Your task to perform on an android device: Open my contact list Image 0: 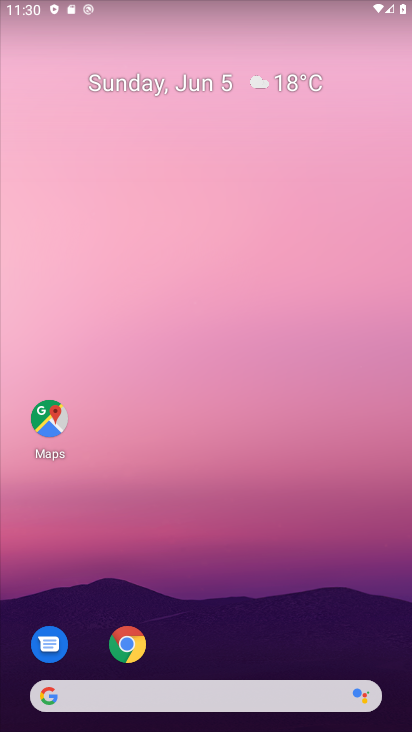
Step 0: drag from (196, 585) to (230, 54)
Your task to perform on an android device: Open my contact list Image 1: 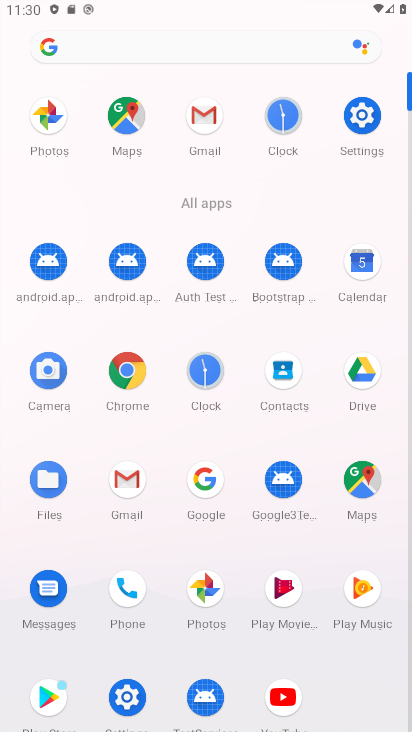
Step 1: click (269, 370)
Your task to perform on an android device: Open my contact list Image 2: 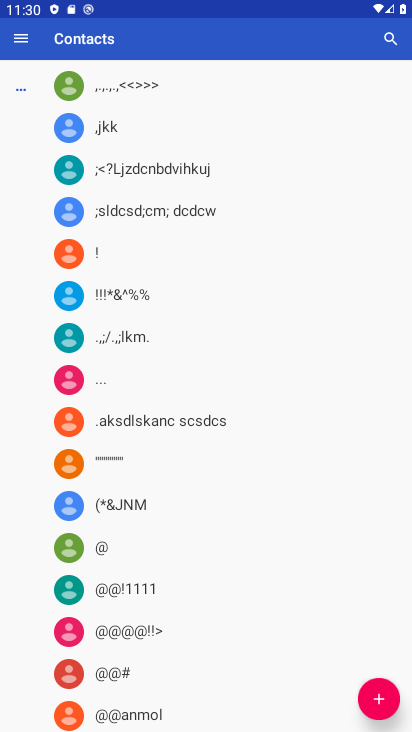
Step 2: task complete